Your task to perform on an android device: open app "Spotify" (install if not already installed) Image 0: 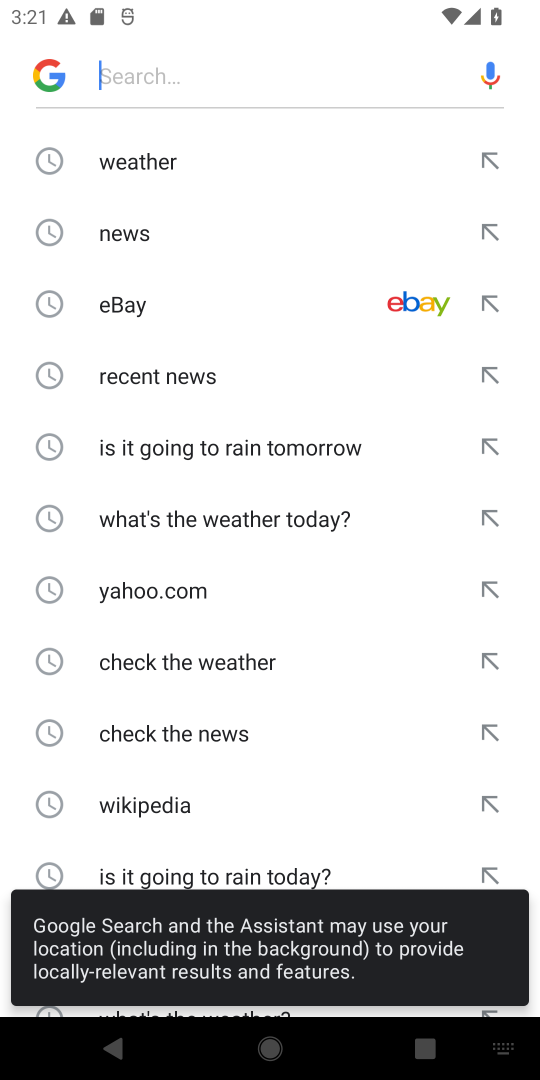
Step 0: press back button
Your task to perform on an android device: open app "Spotify" (install if not already installed) Image 1: 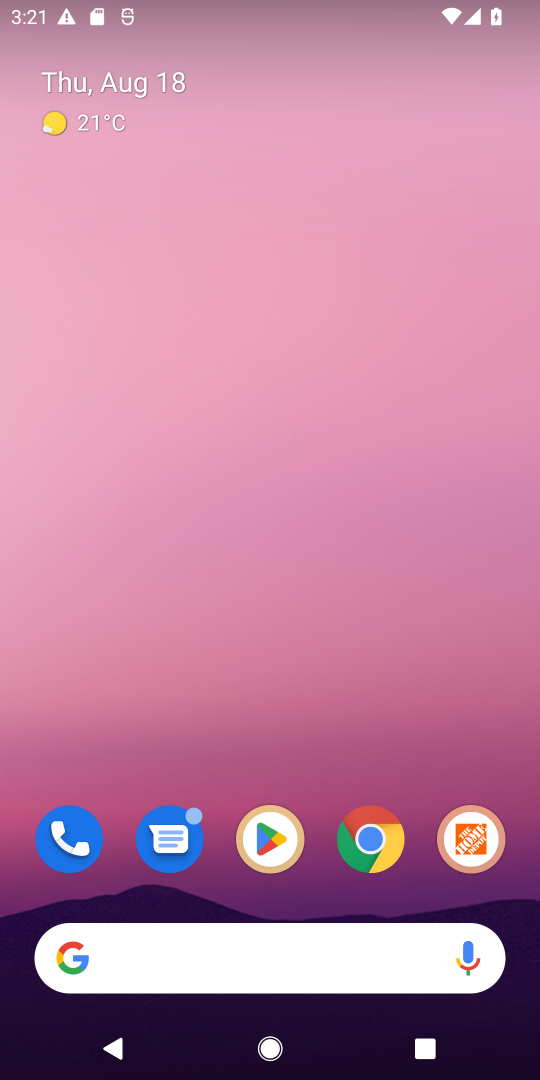
Step 1: click (251, 827)
Your task to perform on an android device: open app "Spotify" (install if not already installed) Image 2: 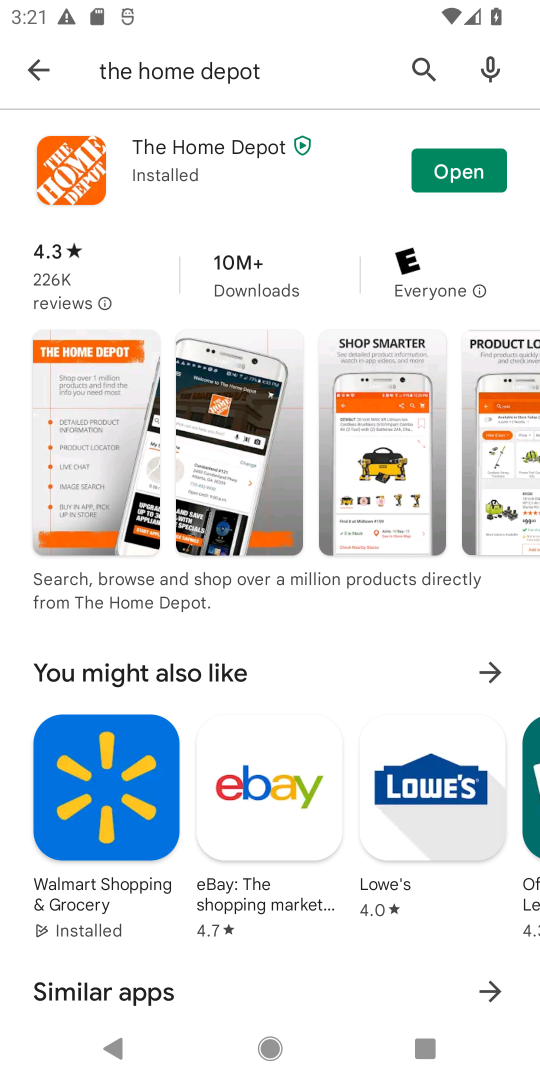
Step 2: click (35, 79)
Your task to perform on an android device: open app "Spotify" (install if not already installed) Image 3: 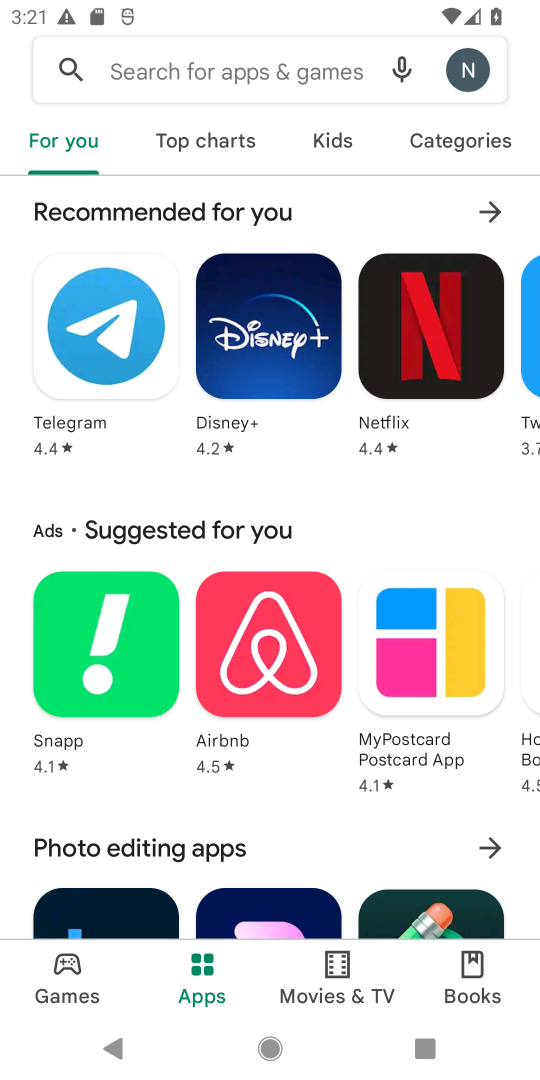
Step 3: click (107, 79)
Your task to perform on an android device: open app "Spotify" (install if not already installed) Image 4: 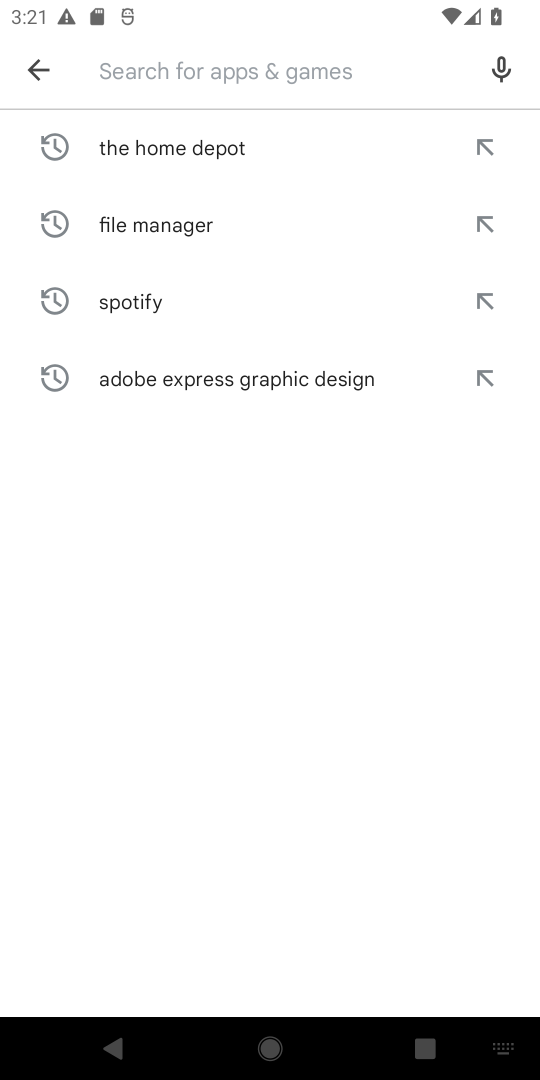
Step 4: click (148, 298)
Your task to perform on an android device: open app "Spotify" (install if not already installed) Image 5: 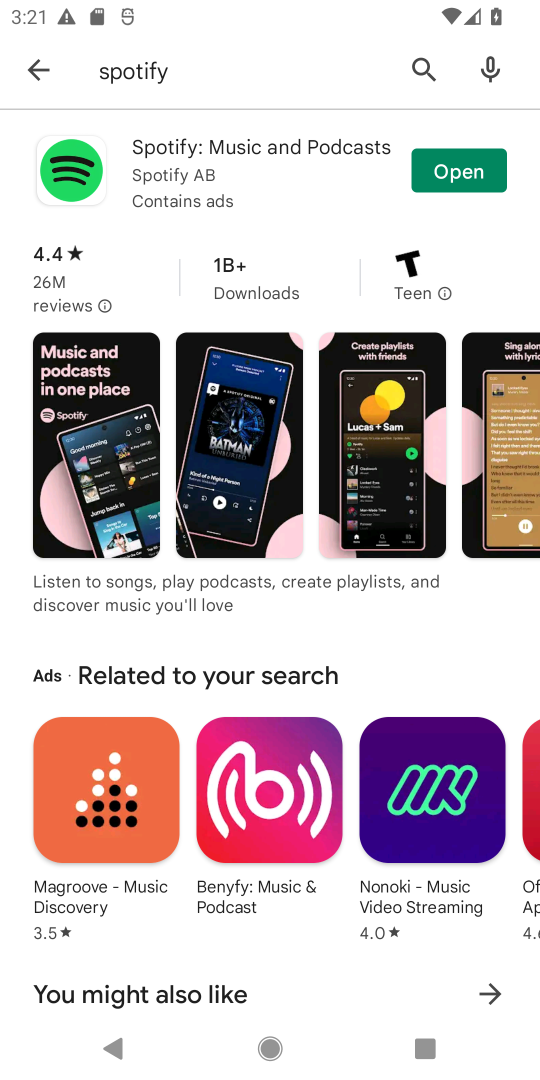
Step 5: click (423, 165)
Your task to perform on an android device: open app "Spotify" (install if not already installed) Image 6: 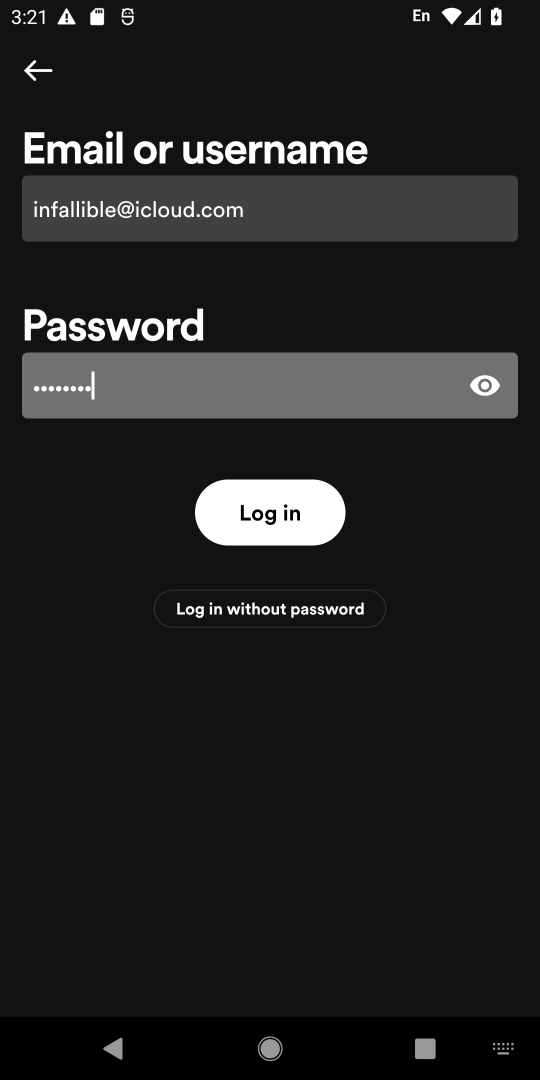
Step 6: task complete